Your task to perform on an android device: allow cookies in the chrome app Image 0: 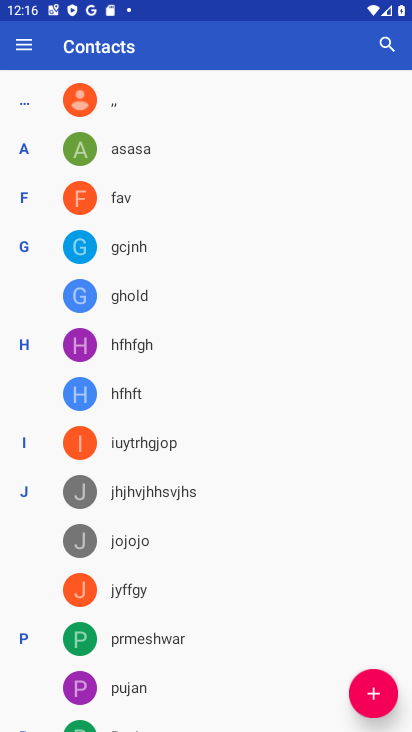
Step 0: press home button
Your task to perform on an android device: allow cookies in the chrome app Image 1: 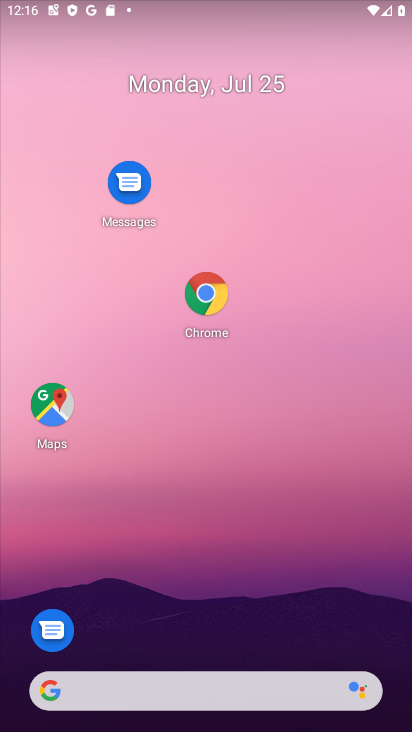
Step 1: drag from (264, 591) to (378, 0)
Your task to perform on an android device: allow cookies in the chrome app Image 2: 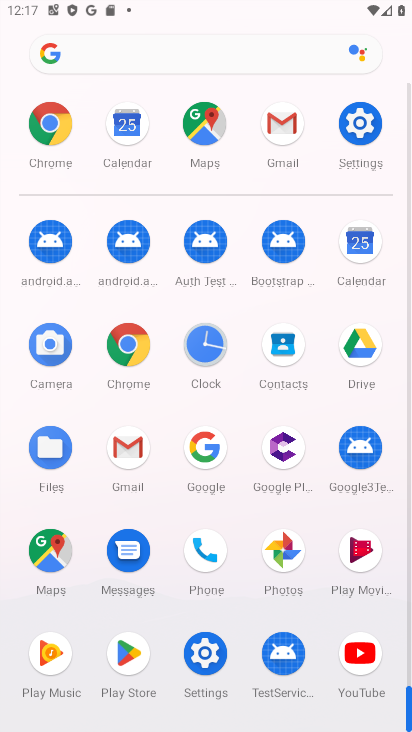
Step 2: click (96, 357)
Your task to perform on an android device: allow cookies in the chrome app Image 3: 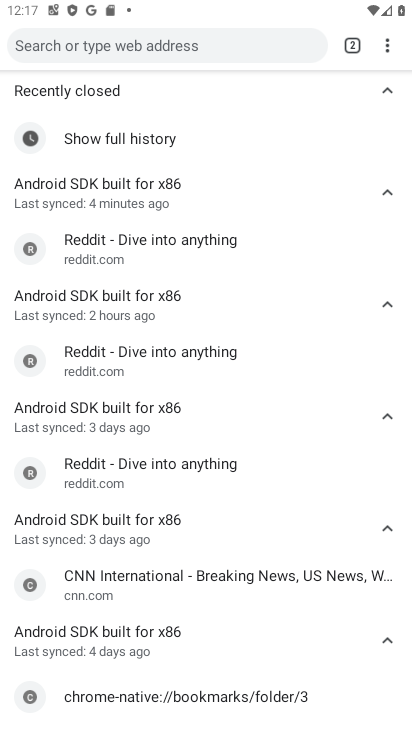
Step 3: drag from (375, 52) to (213, 435)
Your task to perform on an android device: allow cookies in the chrome app Image 4: 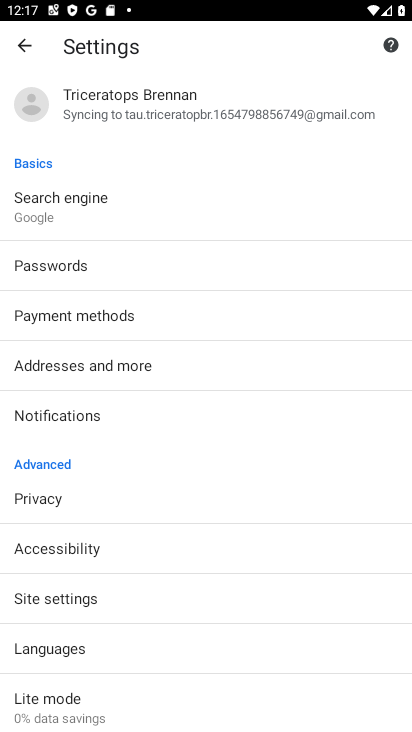
Step 4: click (58, 596)
Your task to perform on an android device: allow cookies in the chrome app Image 5: 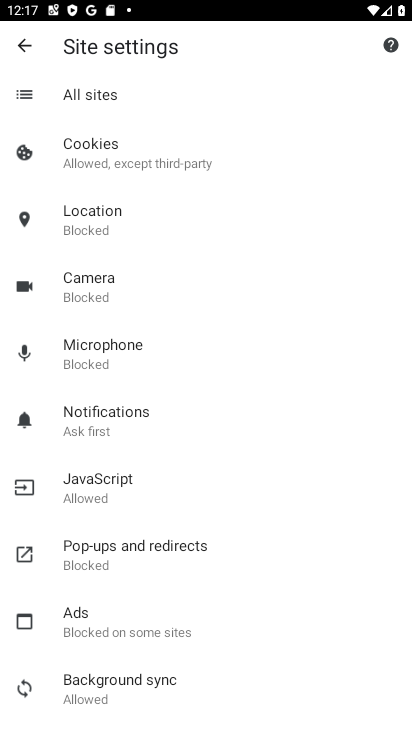
Step 5: click (87, 152)
Your task to perform on an android device: allow cookies in the chrome app Image 6: 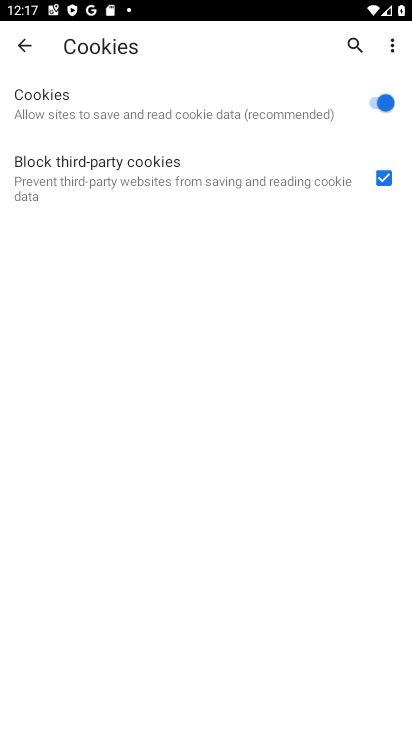
Step 6: task complete